Your task to perform on an android device: Open the calendar app, open the side menu, and click the "Day" option Image 0: 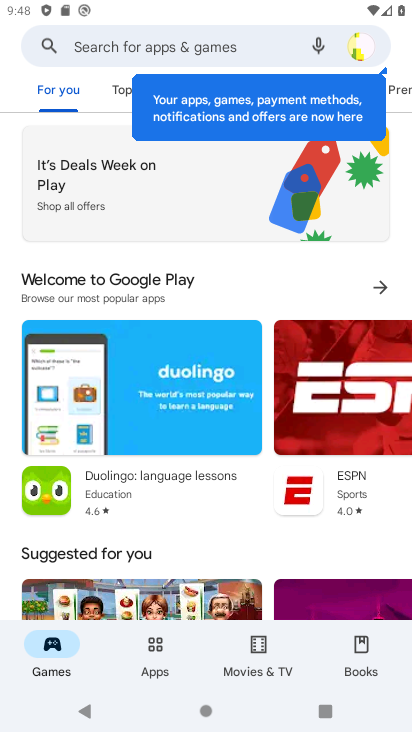
Step 0: press home button
Your task to perform on an android device: Open the calendar app, open the side menu, and click the "Day" option Image 1: 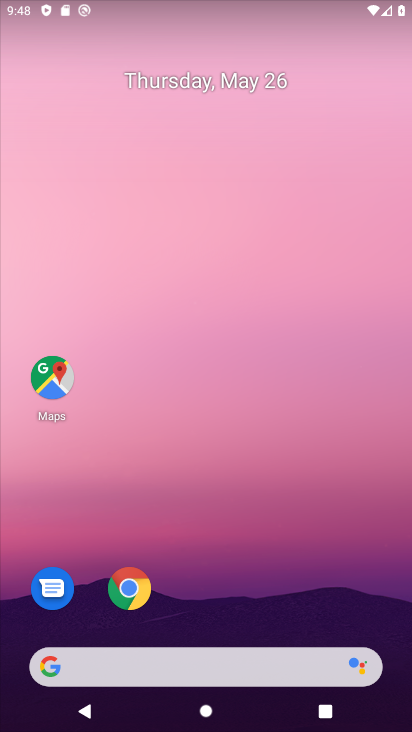
Step 1: drag from (233, 730) to (185, 78)
Your task to perform on an android device: Open the calendar app, open the side menu, and click the "Day" option Image 2: 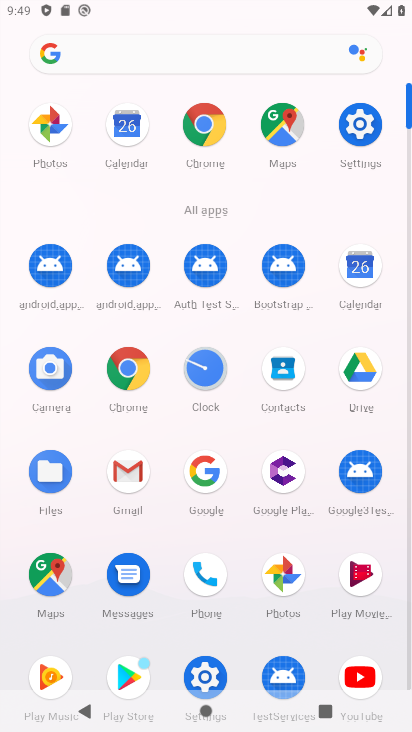
Step 2: click (358, 270)
Your task to perform on an android device: Open the calendar app, open the side menu, and click the "Day" option Image 3: 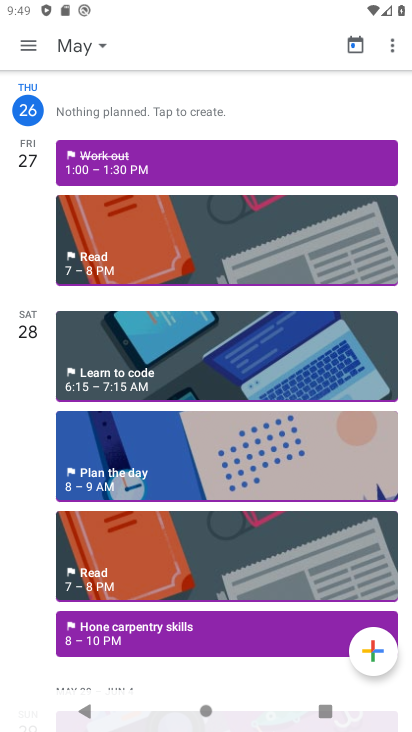
Step 3: click (28, 43)
Your task to perform on an android device: Open the calendar app, open the side menu, and click the "Day" option Image 4: 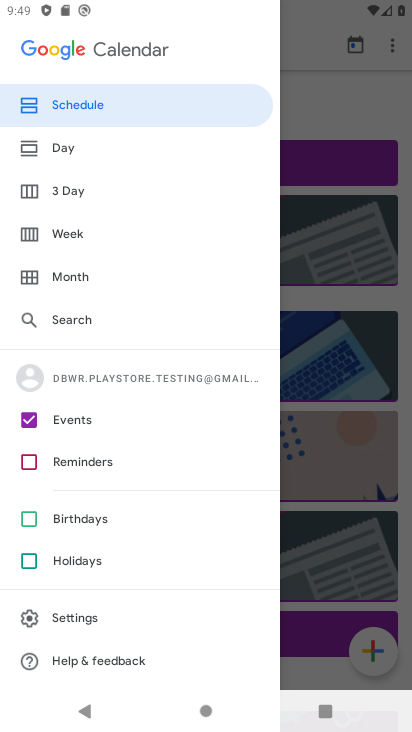
Step 4: click (71, 146)
Your task to perform on an android device: Open the calendar app, open the side menu, and click the "Day" option Image 5: 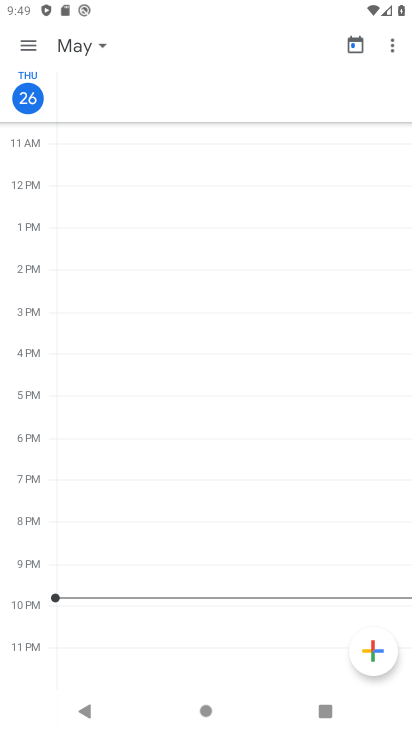
Step 5: task complete